Your task to perform on an android device: turn off location history Image 0: 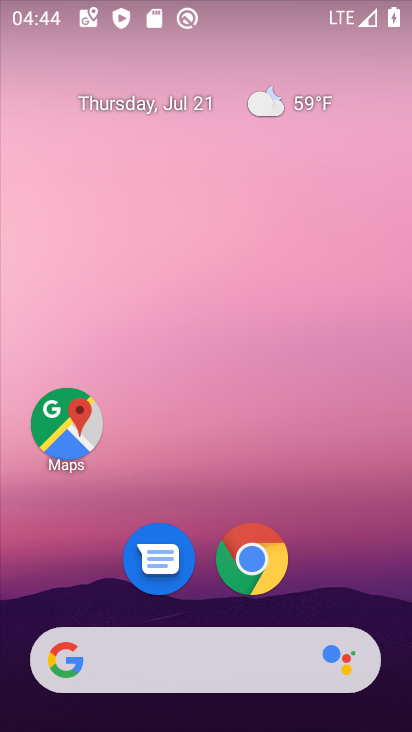
Step 0: drag from (80, 462) to (86, 56)
Your task to perform on an android device: turn off location history Image 1: 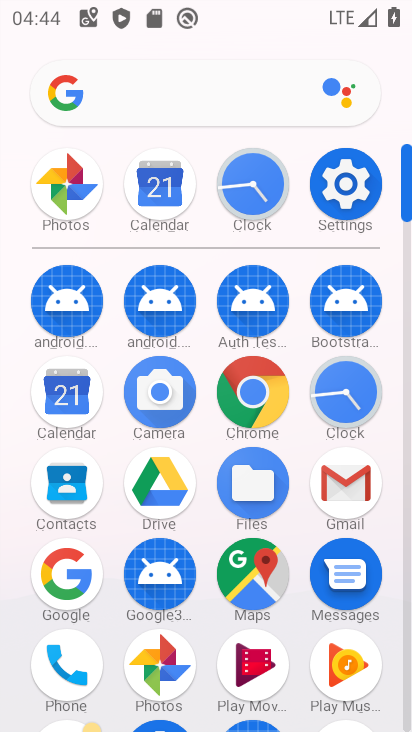
Step 1: click (343, 191)
Your task to perform on an android device: turn off location history Image 2: 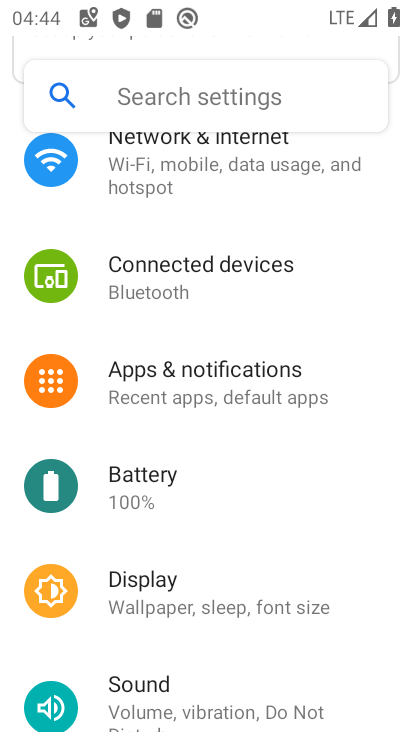
Step 2: drag from (182, 673) to (303, 123)
Your task to perform on an android device: turn off location history Image 3: 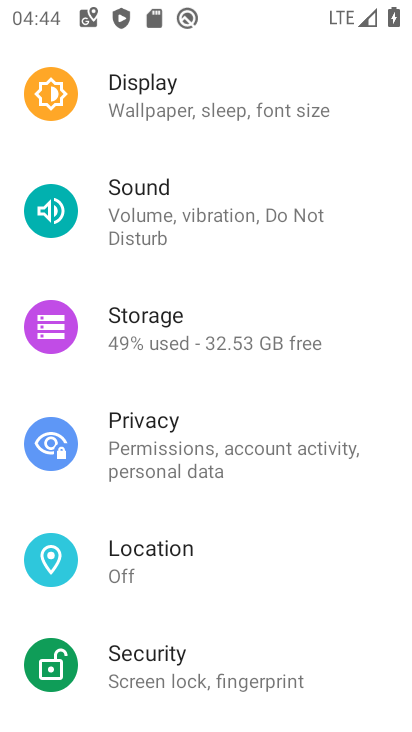
Step 3: click (185, 551)
Your task to perform on an android device: turn off location history Image 4: 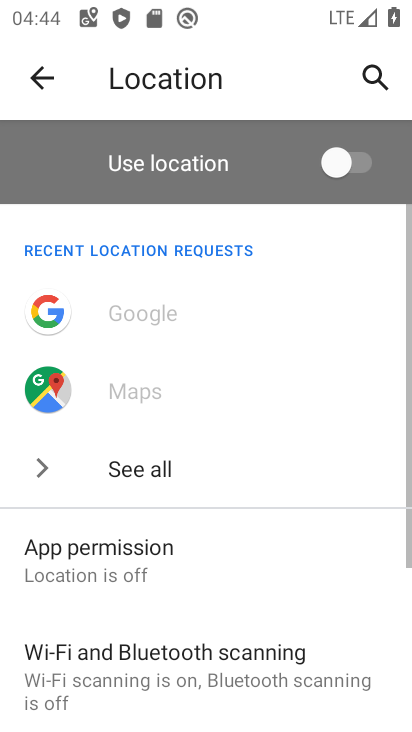
Step 4: drag from (164, 639) to (244, 191)
Your task to perform on an android device: turn off location history Image 5: 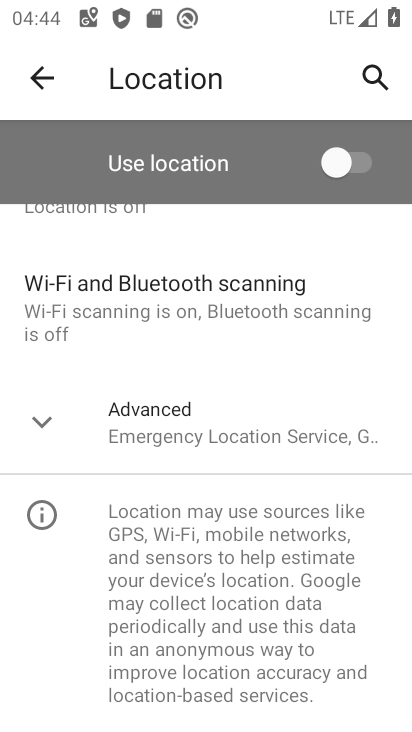
Step 5: click (165, 423)
Your task to perform on an android device: turn off location history Image 6: 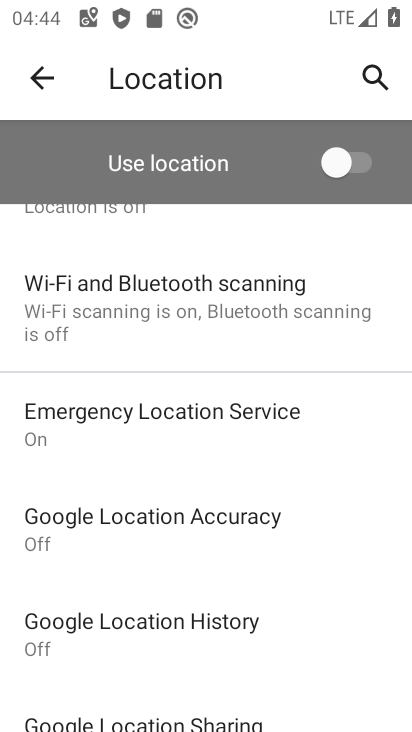
Step 6: click (155, 614)
Your task to perform on an android device: turn off location history Image 7: 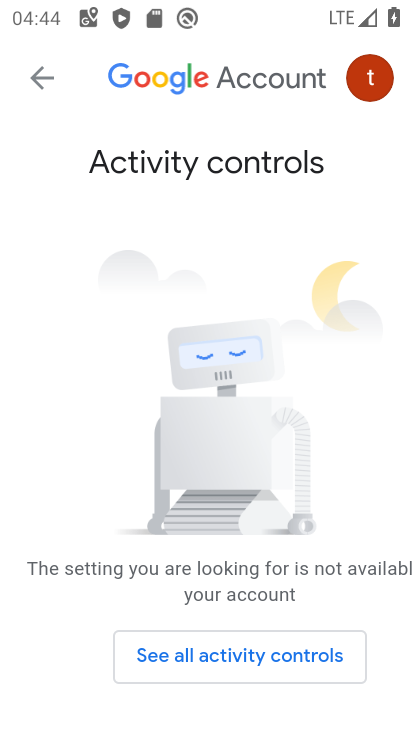
Step 7: task complete